Your task to perform on an android device: Open calendar and show me the fourth week of next month Image 0: 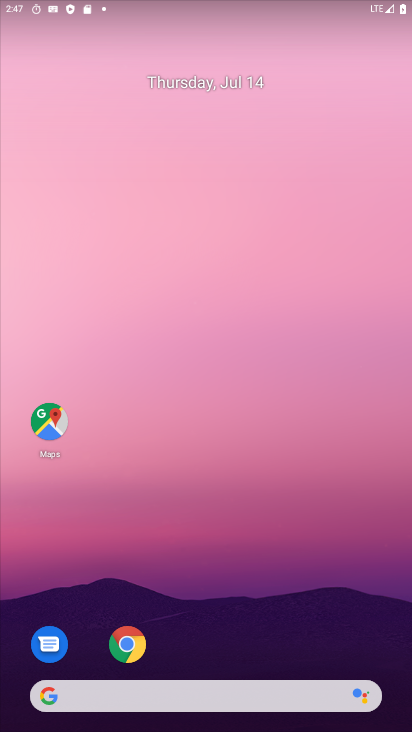
Step 0: drag from (97, 588) to (97, 330)
Your task to perform on an android device: Open calendar and show me the fourth week of next month Image 1: 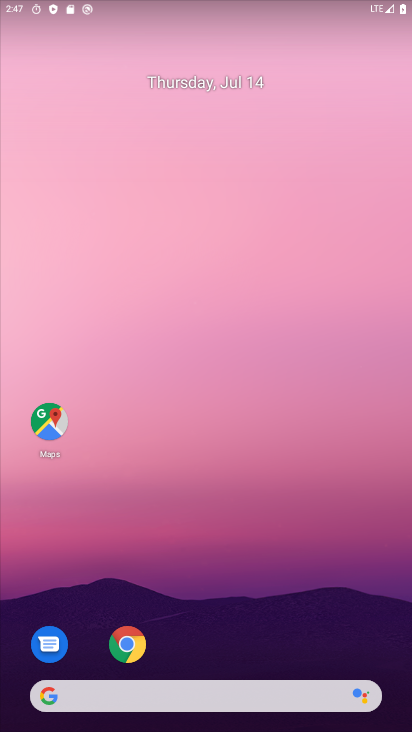
Step 1: drag from (91, 705) to (102, 204)
Your task to perform on an android device: Open calendar and show me the fourth week of next month Image 2: 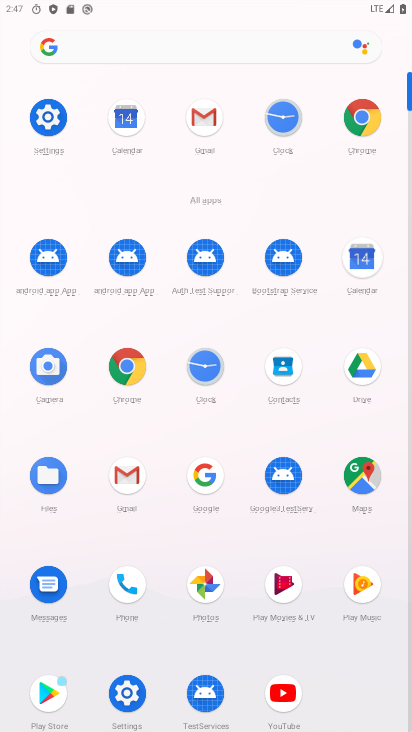
Step 2: click (351, 273)
Your task to perform on an android device: Open calendar and show me the fourth week of next month Image 3: 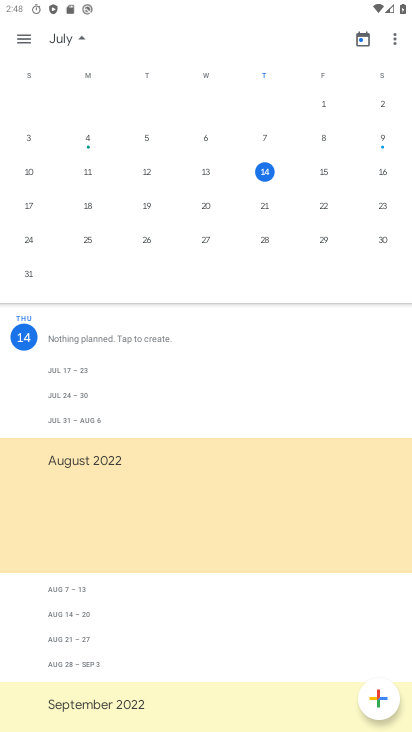
Step 3: drag from (367, 140) to (1, 312)
Your task to perform on an android device: Open calendar and show me the fourth week of next month Image 4: 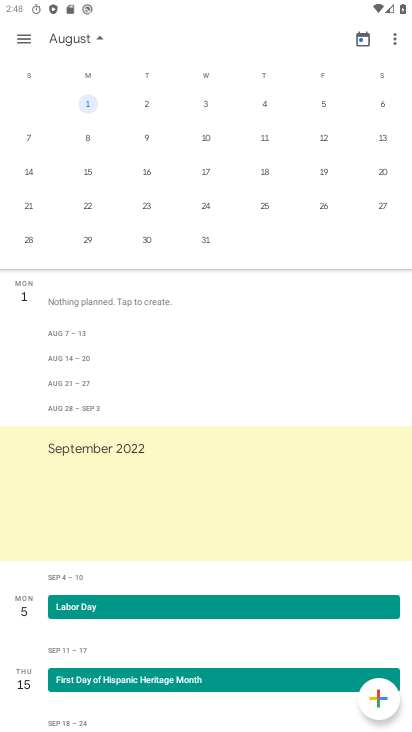
Step 4: click (378, 110)
Your task to perform on an android device: Open calendar and show me the fourth week of next month Image 5: 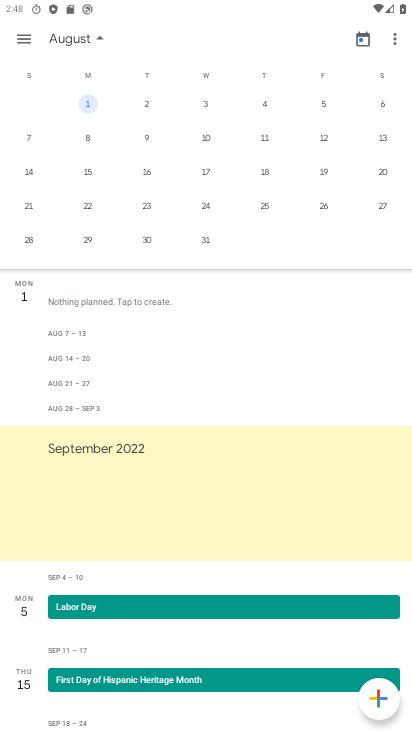
Step 5: click (77, 206)
Your task to perform on an android device: Open calendar and show me the fourth week of next month Image 6: 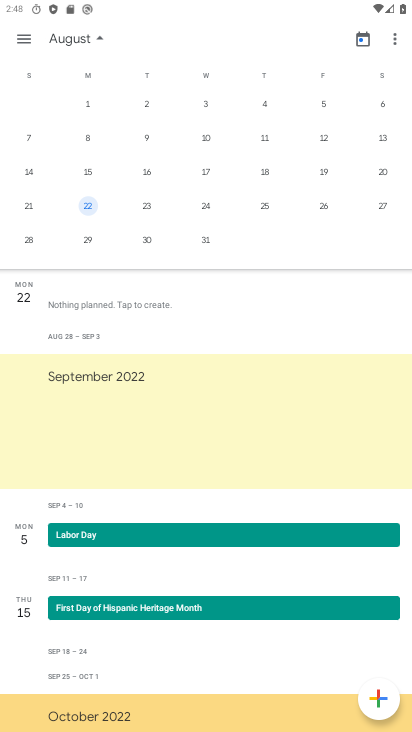
Step 6: task complete